Your task to perform on an android device: Go to battery settings Image 0: 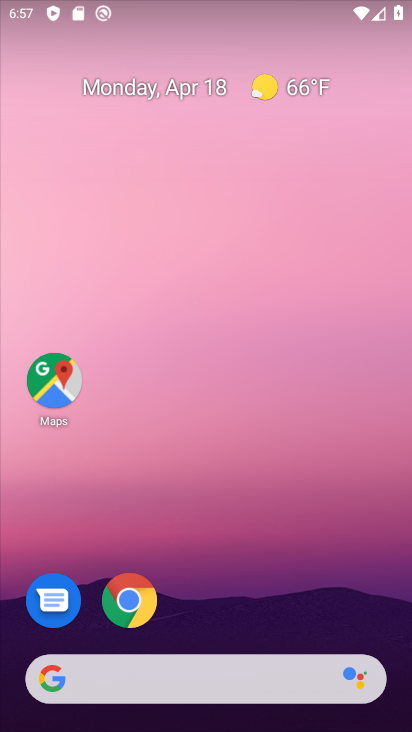
Step 0: drag from (214, 510) to (260, 5)
Your task to perform on an android device: Go to battery settings Image 1: 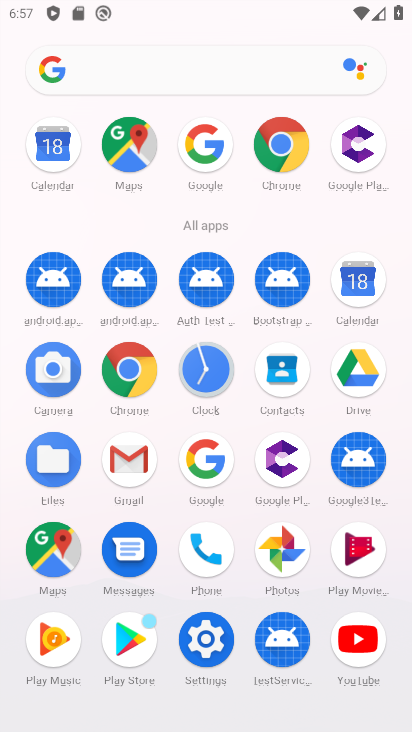
Step 1: click (208, 633)
Your task to perform on an android device: Go to battery settings Image 2: 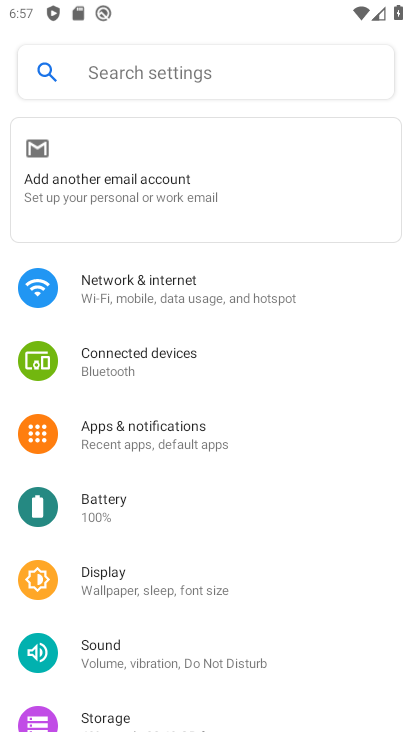
Step 2: click (96, 503)
Your task to perform on an android device: Go to battery settings Image 3: 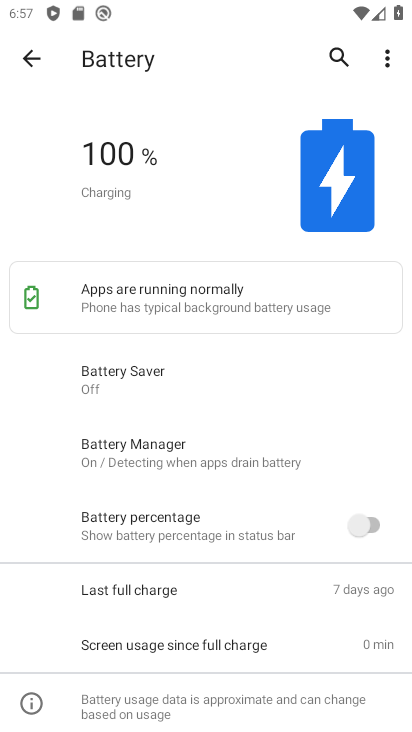
Step 3: task complete